Your task to perform on an android device: toggle airplane mode Image 0: 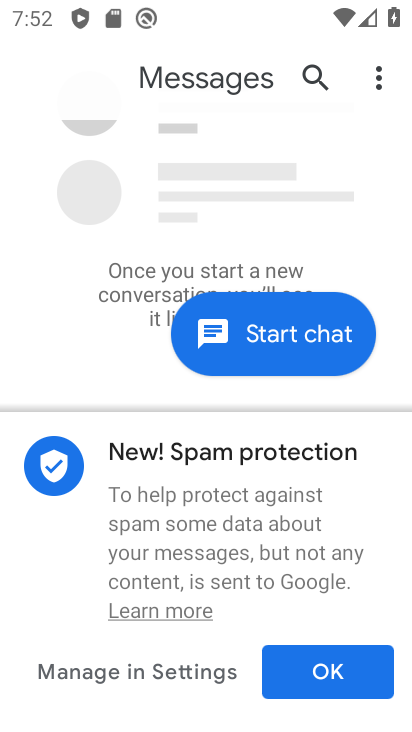
Step 0: press home button
Your task to perform on an android device: toggle airplane mode Image 1: 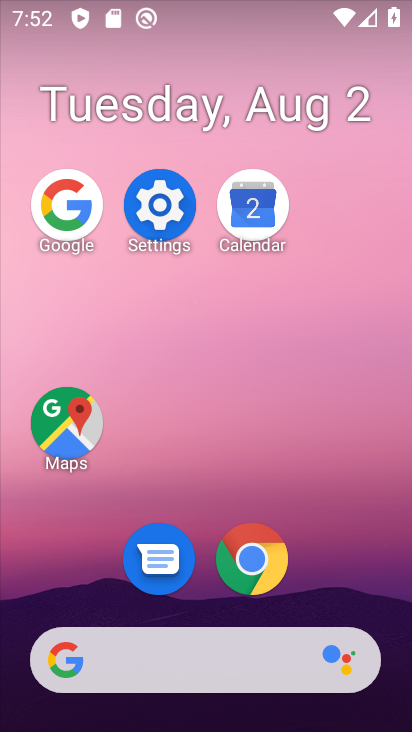
Step 1: click (179, 218)
Your task to perform on an android device: toggle airplane mode Image 2: 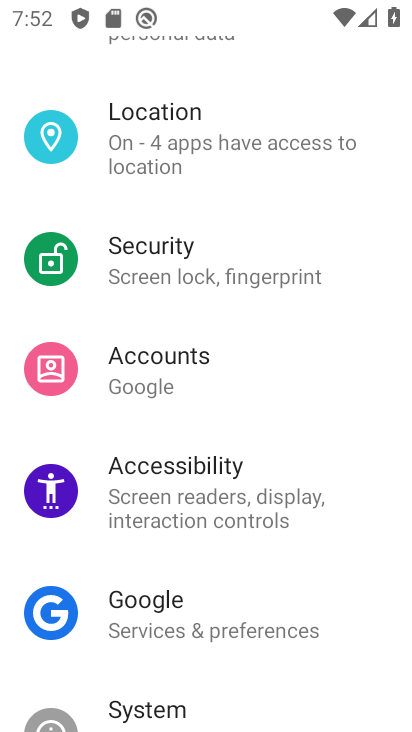
Step 2: drag from (346, 210) to (396, 572)
Your task to perform on an android device: toggle airplane mode Image 3: 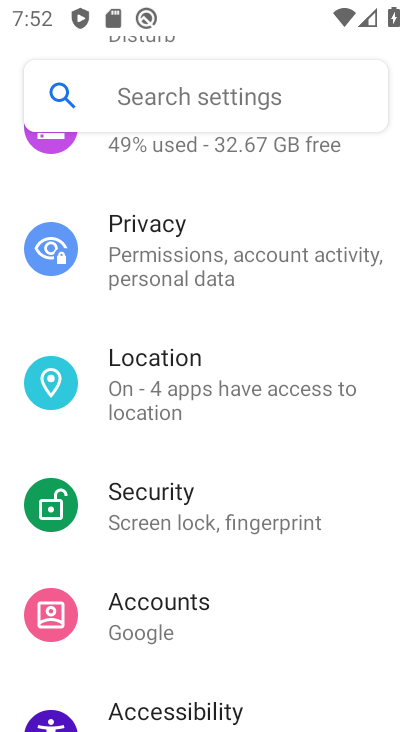
Step 3: drag from (334, 203) to (341, 550)
Your task to perform on an android device: toggle airplane mode Image 4: 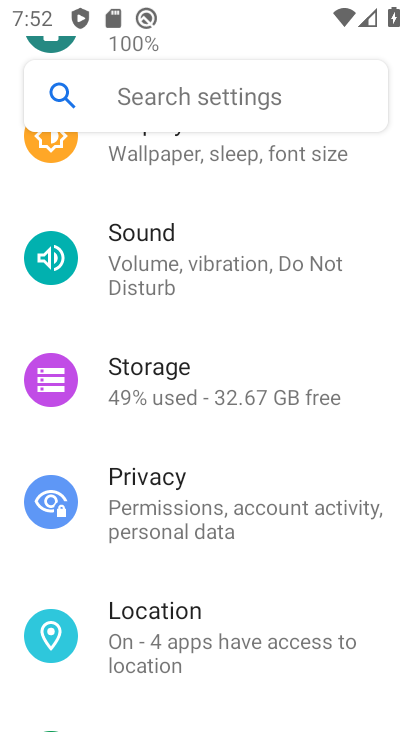
Step 4: drag from (268, 179) to (283, 546)
Your task to perform on an android device: toggle airplane mode Image 5: 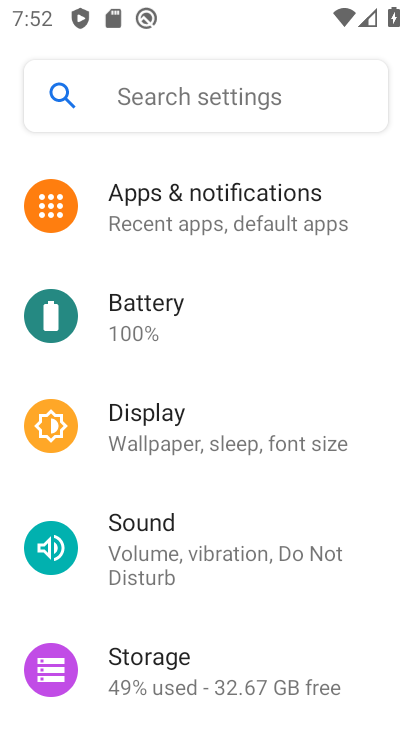
Step 5: drag from (304, 176) to (331, 507)
Your task to perform on an android device: toggle airplane mode Image 6: 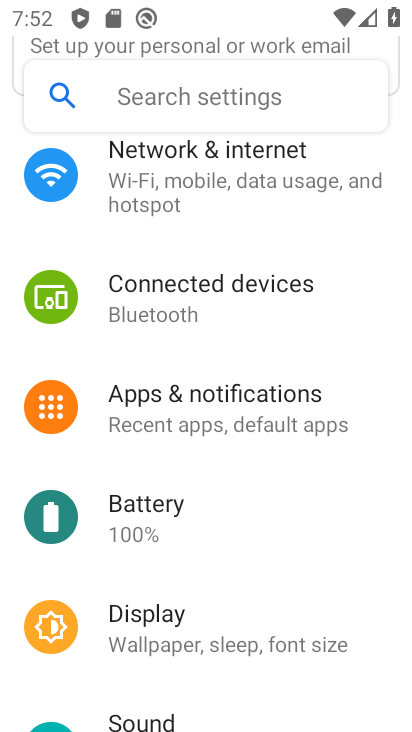
Step 6: click (257, 163)
Your task to perform on an android device: toggle airplane mode Image 7: 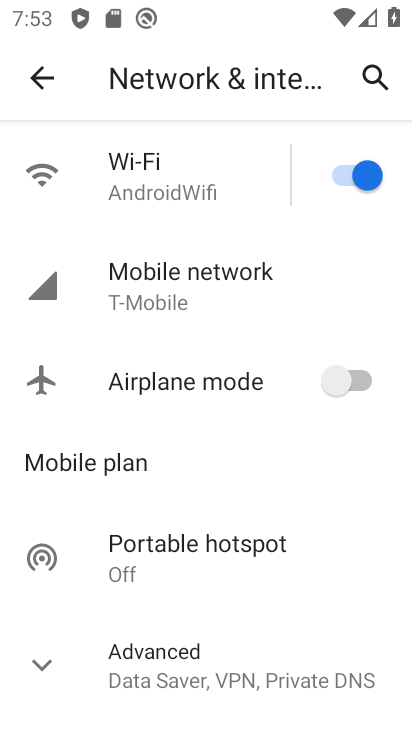
Step 7: click (341, 389)
Your task to perform on an android device: toggle airplane mode Image 8: 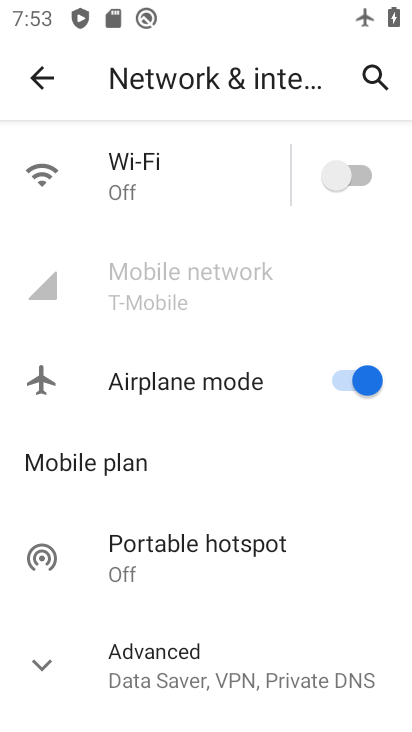
Step 8: task complete